Your task to perform on an android device: Go to Wikipedia Image 0: 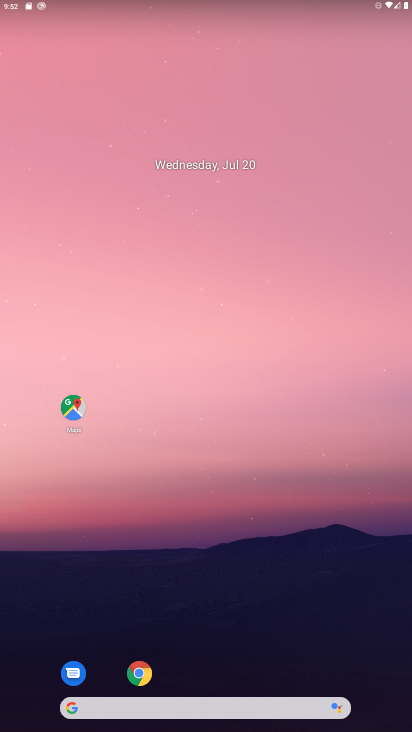
Step 0: drag from (198, 640) to (229, 172)
Your task to perform on an android device: Go to Wikipedia Image 1: 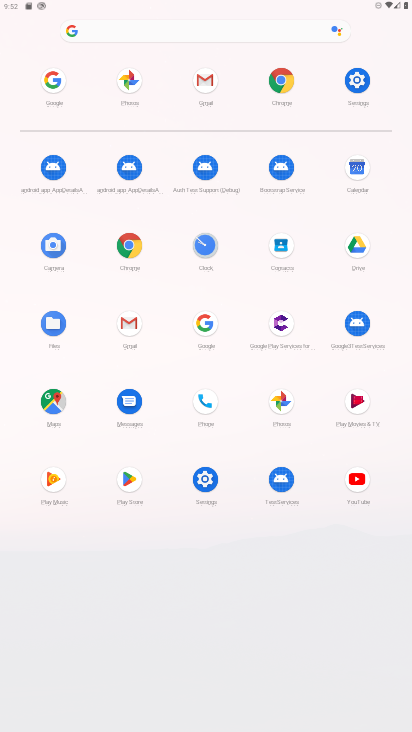
Step 1: click (139, 31)
Your task to perform on an android device: Go to Wikipedia Image 2: 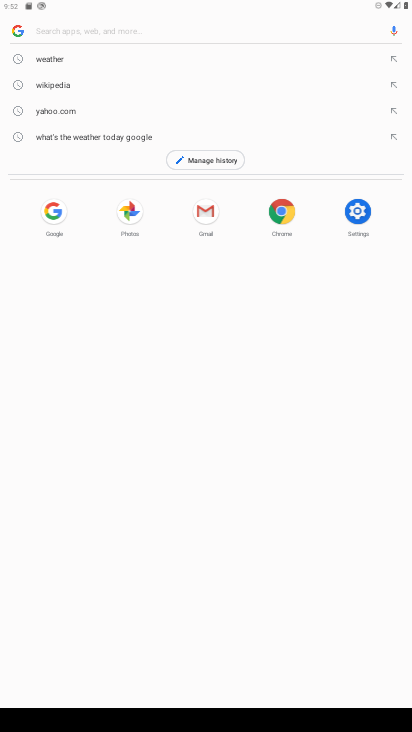
Step 2: click (67, 87)
Your task to perform on an android device: Go to Wikipedia Image 3: 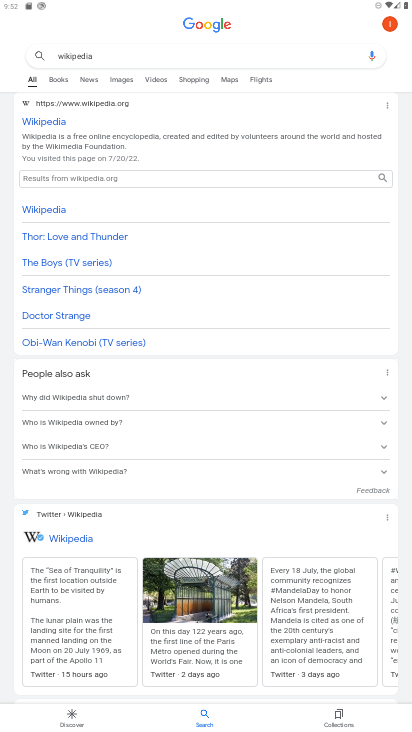
Step 3: click (40, 121)
Your task to perform on an android device: Go to Wikipedia Image 4: 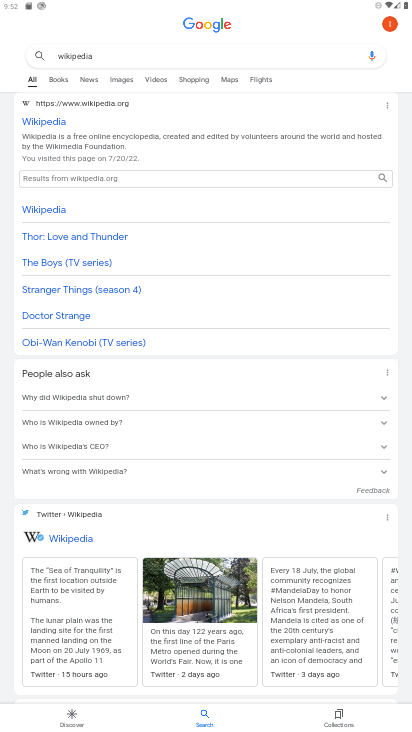
Step 4: task complete